Your task to perform on an android device: Go to eBay Image 0: 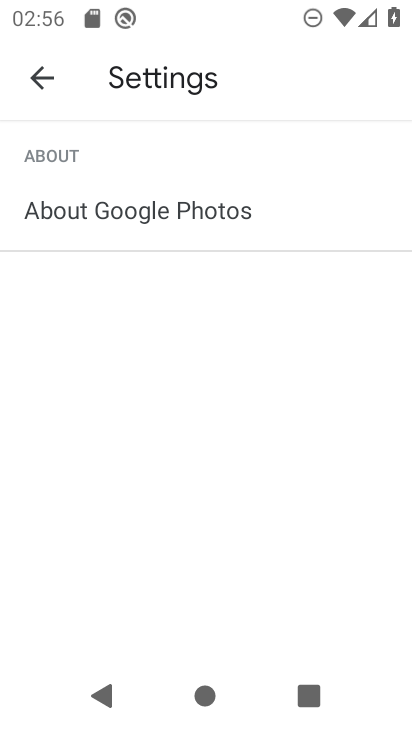
Step 0: press home button
Your task to perform on an android device: Go to eBay Image 1: 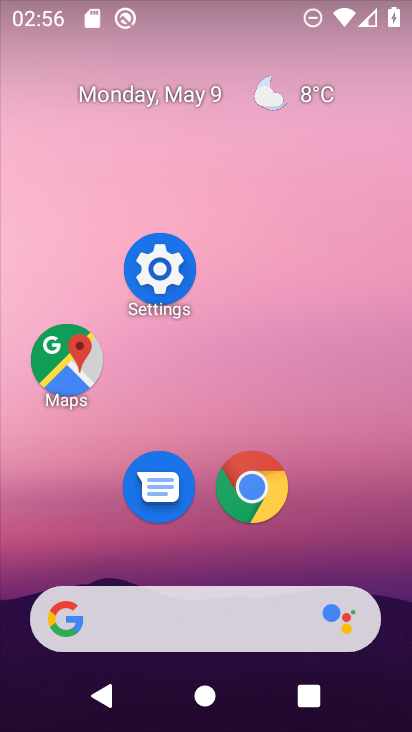
Step 1: click (257, 473)
Your task to perform on an android device: Go to eBay Image 2: 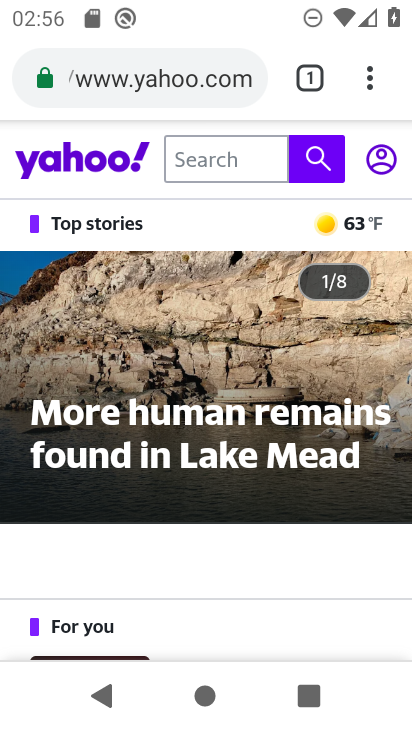
Step 2: click (311, 76)
Your task to perform on an android device: Go to eBay Image 3: 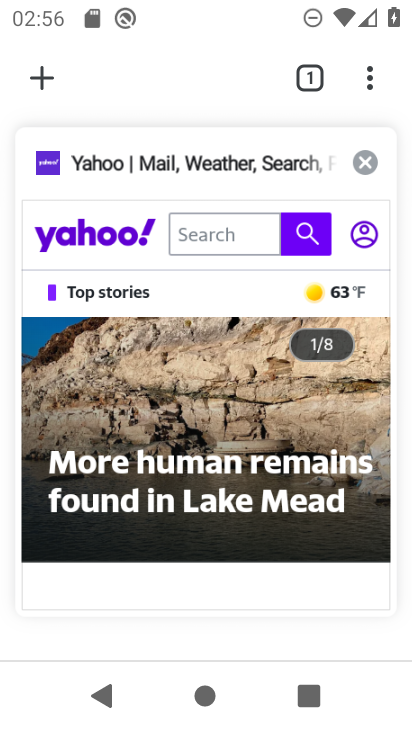
Step 3: click (372, 158)
Your task to perform on an android device: Go to eBay Image 4: 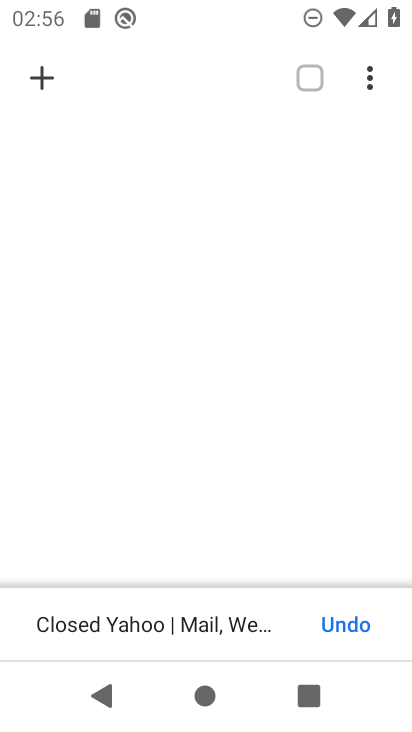
Step 4: click (29, 74)
Your task to perform on an android device: Go to eBay Image 5: 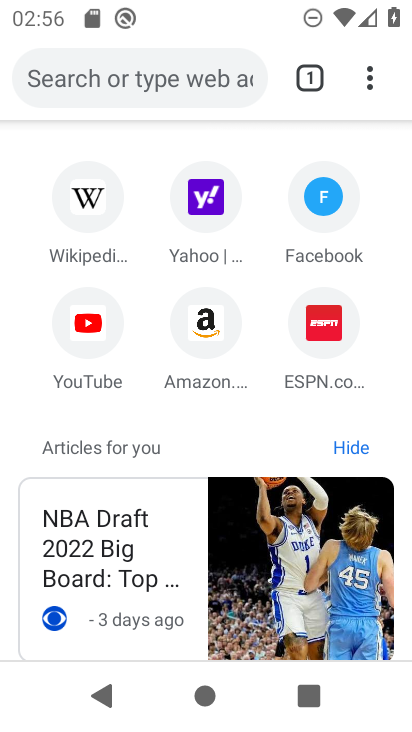
Step 5: click (193, 77)
Your task to perform on an android device: Go to eBay Image 6: 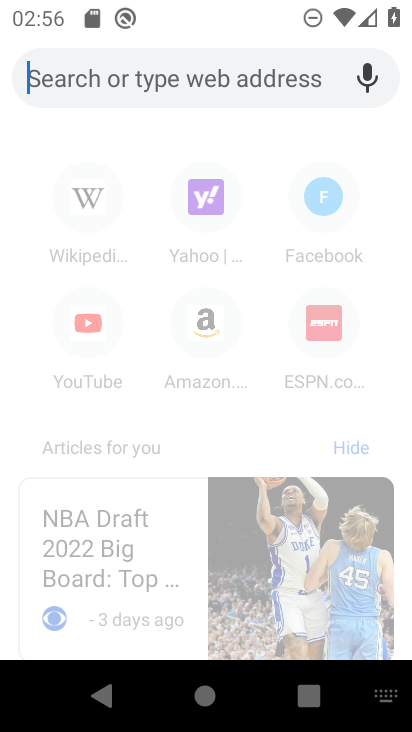
Step 6: type "ebay.com"
Your task to perform on an android device: Go to eBay Image 7: 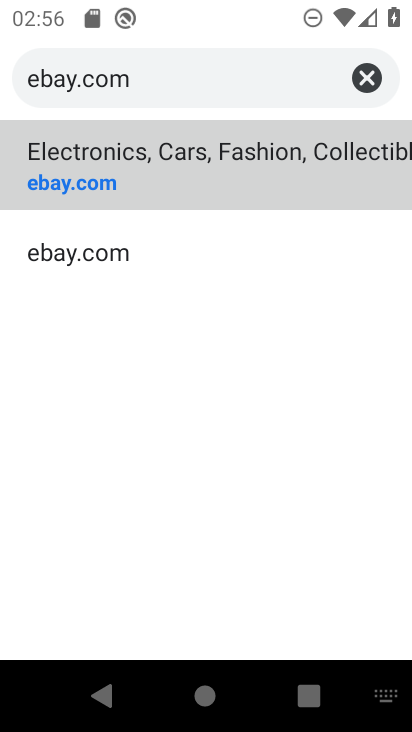
Step 7: click (141, 143)
Your task to perform on an android device: Go to eBay Image 8: 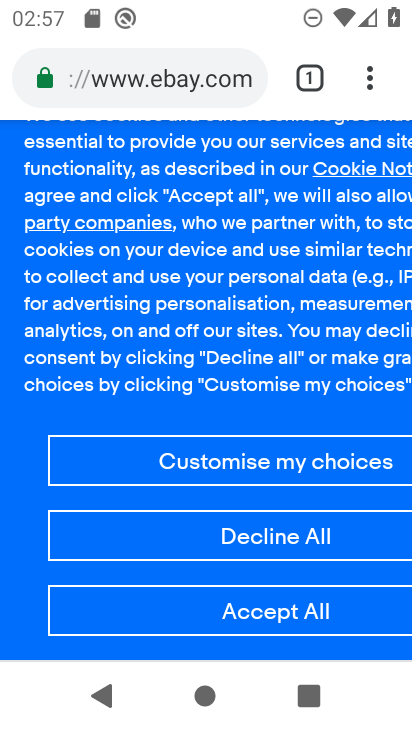
Step 8: task complete